Your task to perform on an android device: Open accessibility settings Image 0: 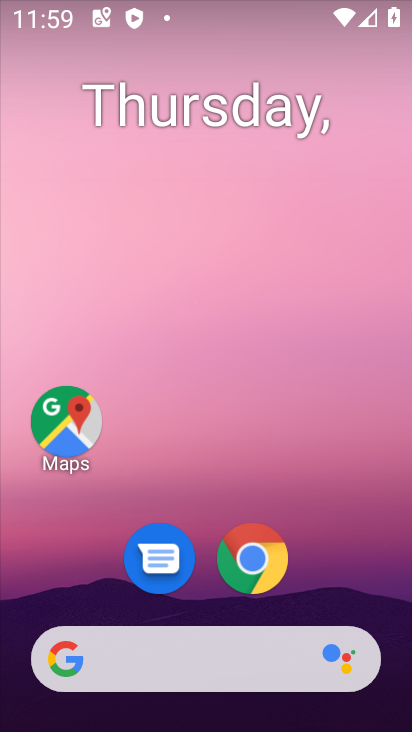
Step 0: drag from (356, 605) to (200, 64)
Your task to perform on an android device: Open accessibility settings Image 1: 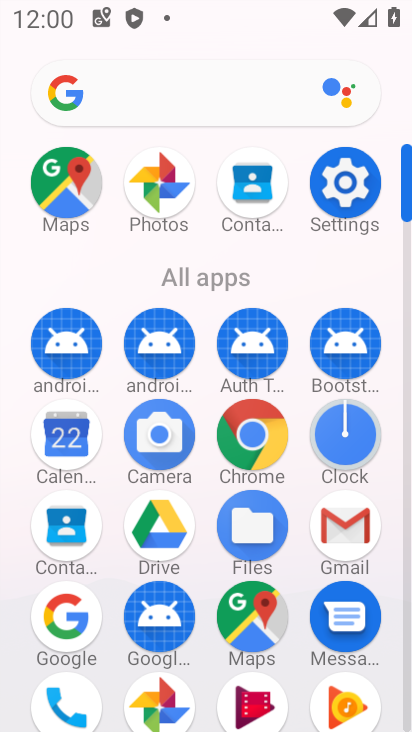
Step 1: click (321, 178)
Your task to perform on an android device: Open accessibility settings Image 2: 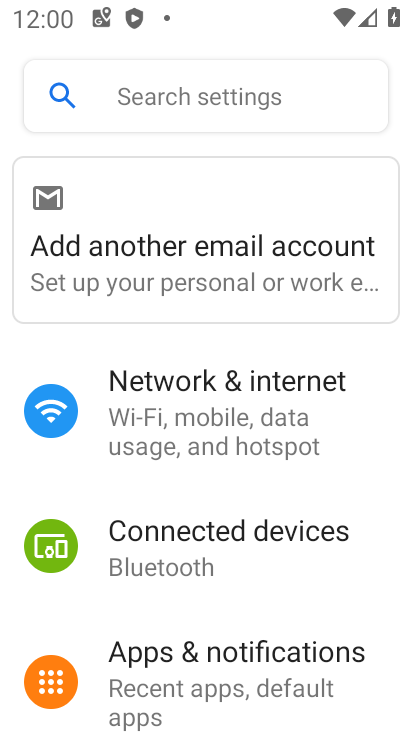
Step 2: drag from (198, 650) to (176, 133)
Your task to perform on an android device: Open accessibility settings Image 3: 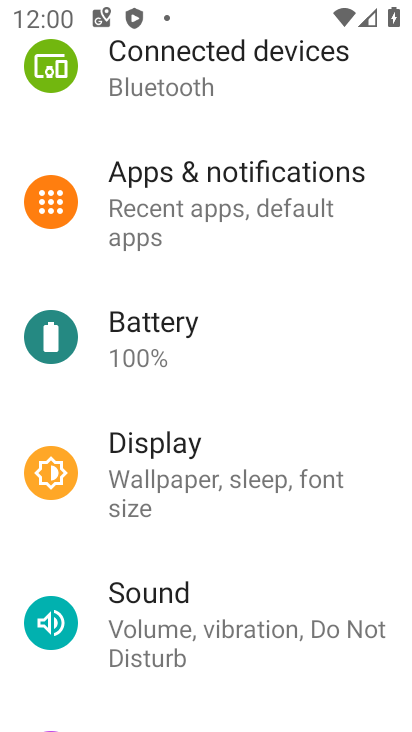
Step 3: drag from (256, 619) to (252, 136)
Your task to perform on an android device: Open accessibility settings Image 4: 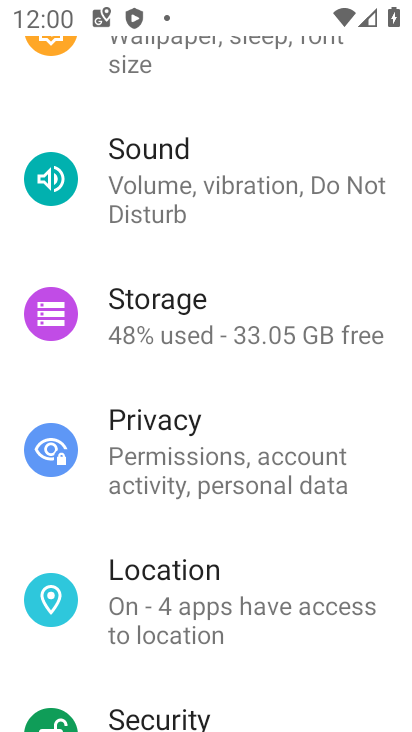
Step 4: drag from (211, 635) to (255, 173)
Your task to perform on an android device: Open accessibility settings Image 5: 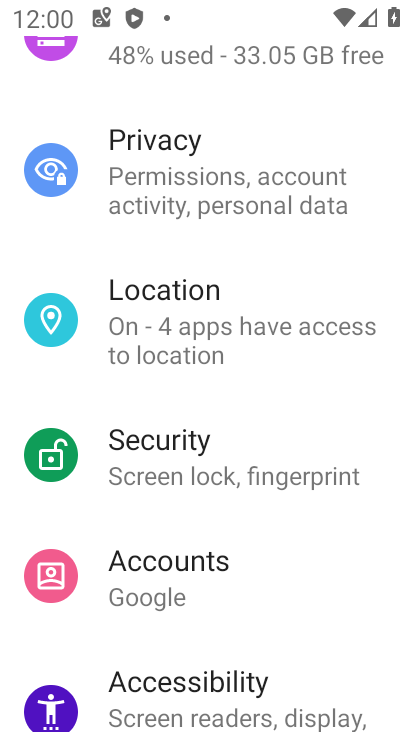
Step 5: click (233, 695)
Your task to perform on an android device: Open accessibility settings Image 6: 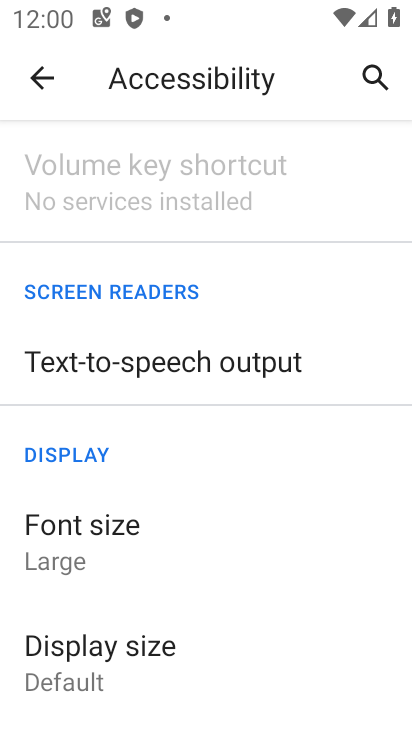
Step 6: task complete